Your task to perform on an android device: make emails show in primary in the gmail app Image 0: 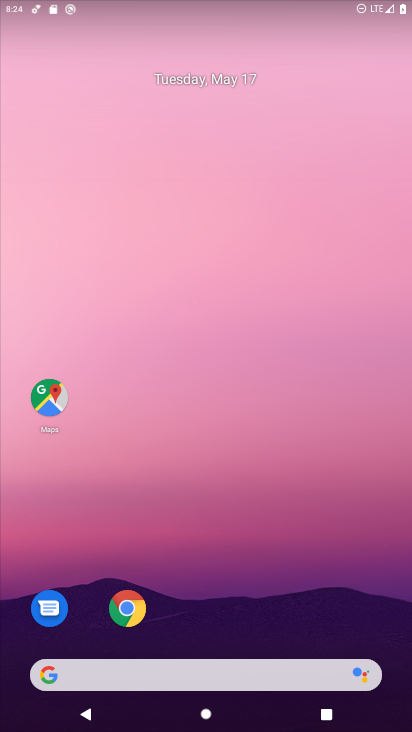
Step 0: drag from (221, 627) to (324, 72)
Your task to perform on an android device: make emails show in primary in the gmail app Image 1: 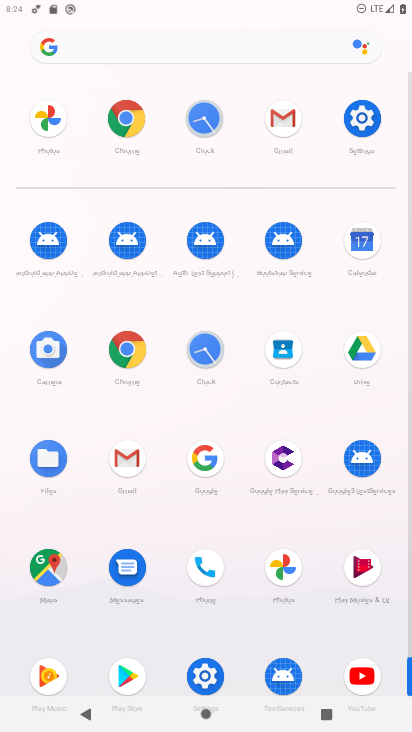
Step 1: click (136, 460)
Your task to perform on an android device: make emails show in primary in the gmail app Image 2: 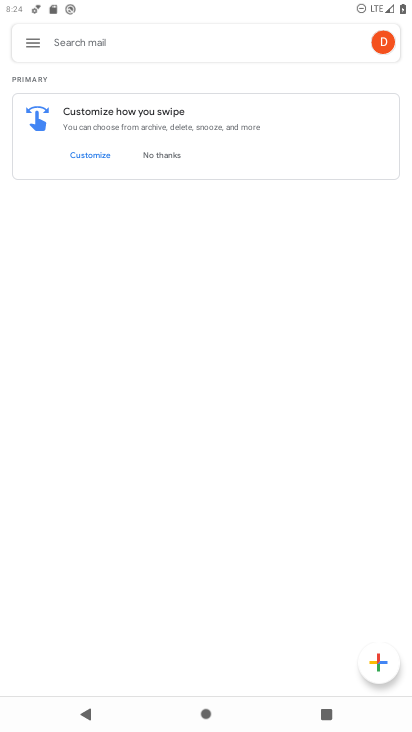
Step 2: click (28, 40)
Your task to perform on an android device: make emails show in primary in the gmail app Image 3: 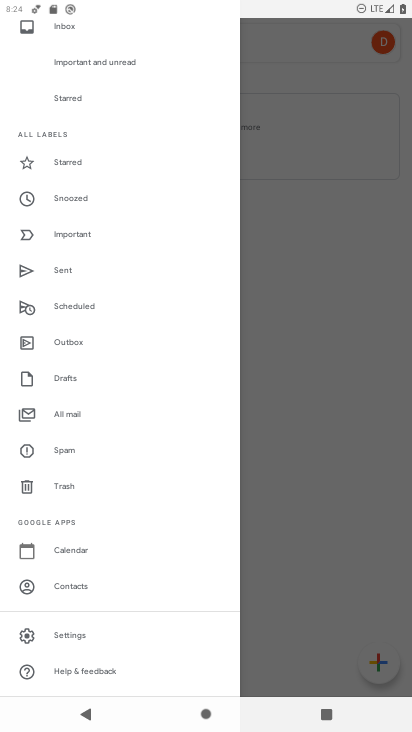
Step 3: click (78, 638)
Your task to perform on an android device: make emails show in primary in the gmail app Image 4: 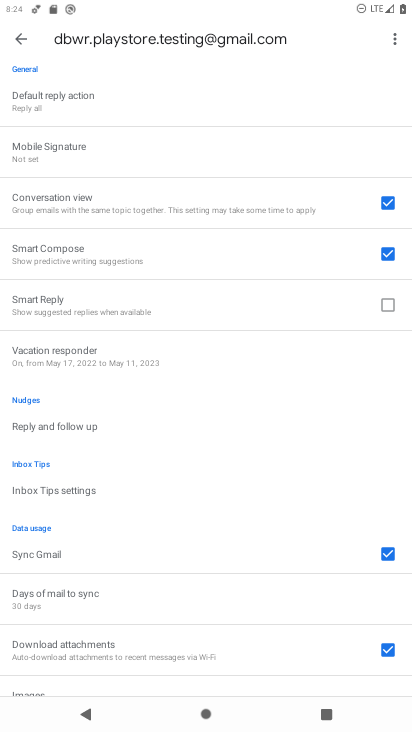
Step 4: drag from (93, 145) to (67, 521)
Your task to perform on an android device: make emails show in primary in the gmail app Image 5: 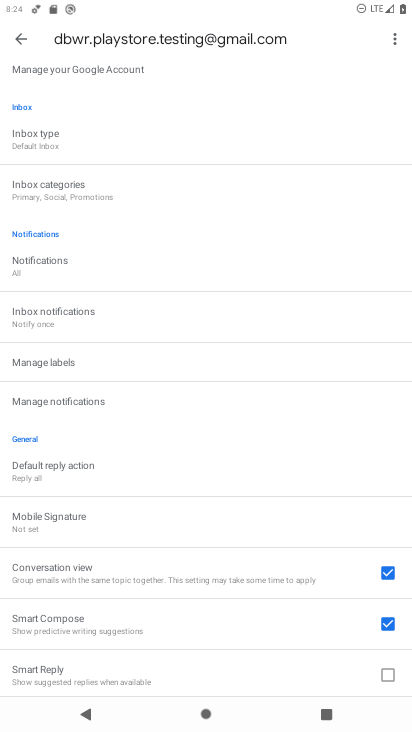
Step 5: drag from (151, 182) to (147, 312)
Your task to perform on an android device: make emails show in primary in the gmail app Image 6: 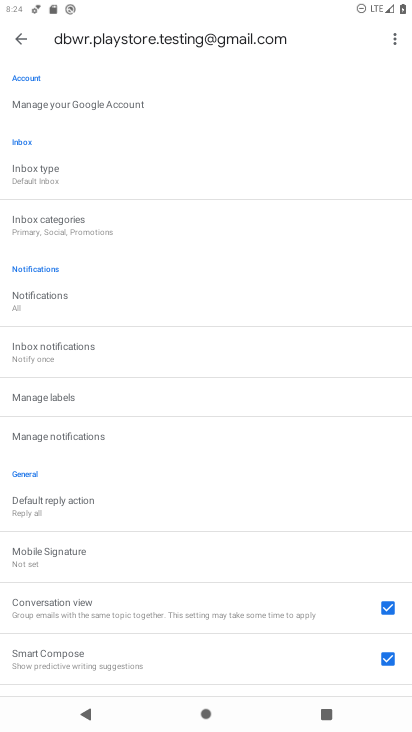
Step 6: click (102, 224)
Your task to perform on an android device: make emails show in primary in the gmail app Image 7: 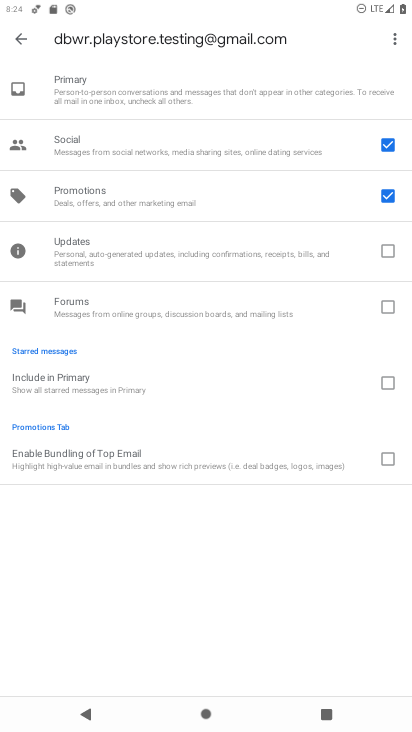
Step 7: click (373, 136)
Your task to perform on an android device: make emails show in primary in the gmail app Image 8: 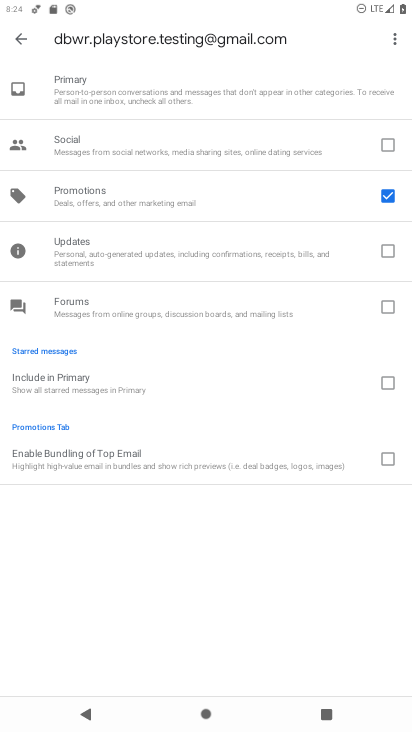
Step 8: click (381, 192)
Your task to perform on an android device: make emails show in primary in the gmail app Image 9: 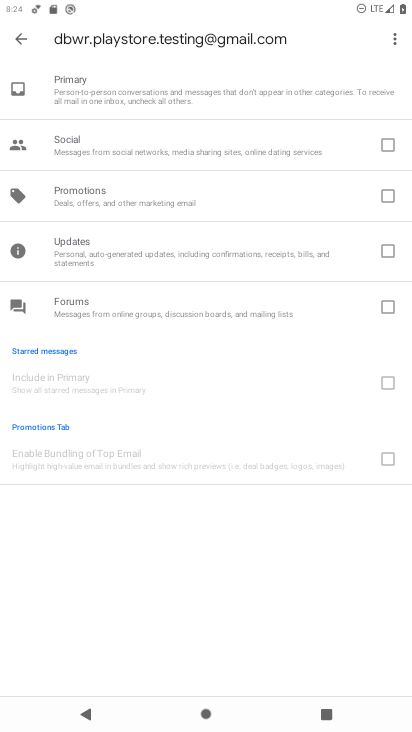
Step 9: task complete